Your task to perform on an android device: What is the news today? Image 0: 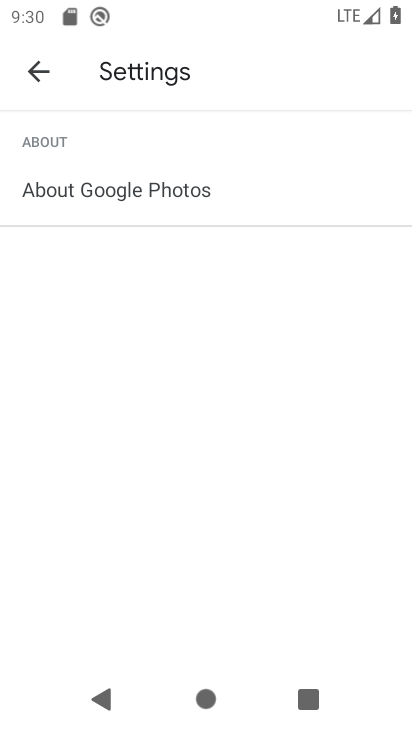
Step 0: press home button
Your task to perform on an android device: What is the news today? Image 1: 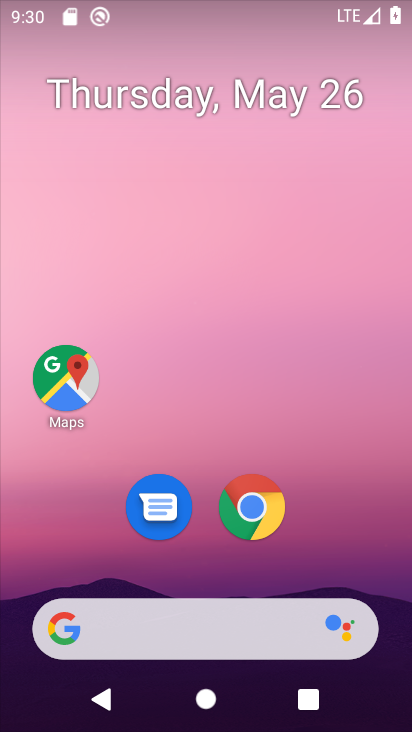
Step 1: task complete